Your task to perform on an android device: see creations saved in the google photos Image 0: 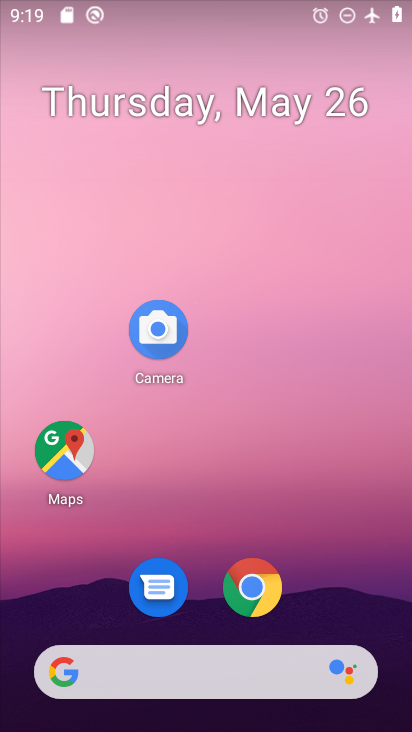
Step 0: drag from (201, 606) to (196, 197)
Your task to perform on an android device: see creations saved in the google photos Image 1: 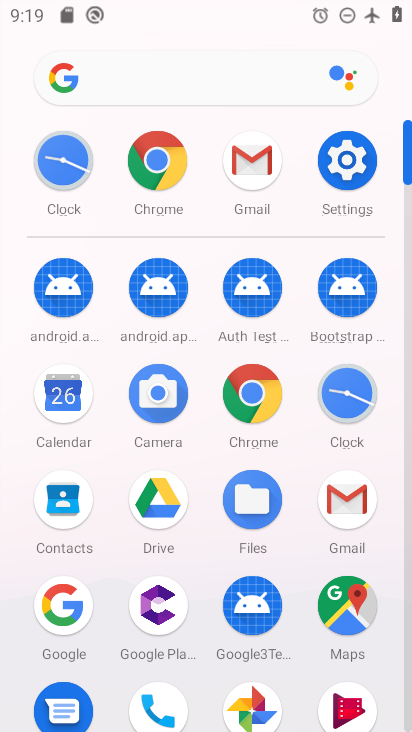
Step 1: drag from (195, 547) to (173, 252)
Your task to perform on an android device: see creations saved in the google photos Image 2: 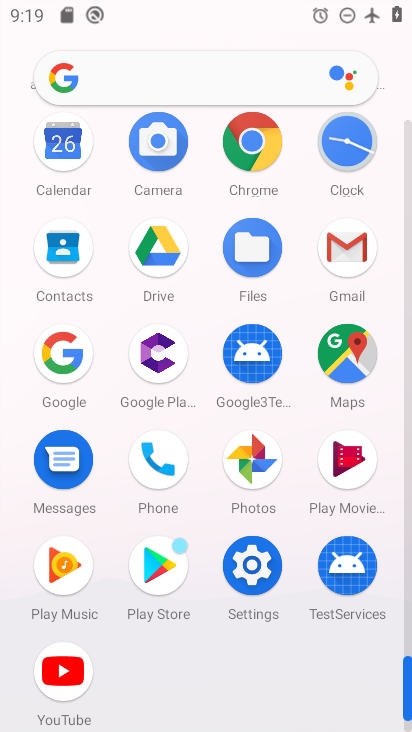
Step 2: click (263, 458)
Your task to perform on an android device: see creations saved in the google photos Image 3: 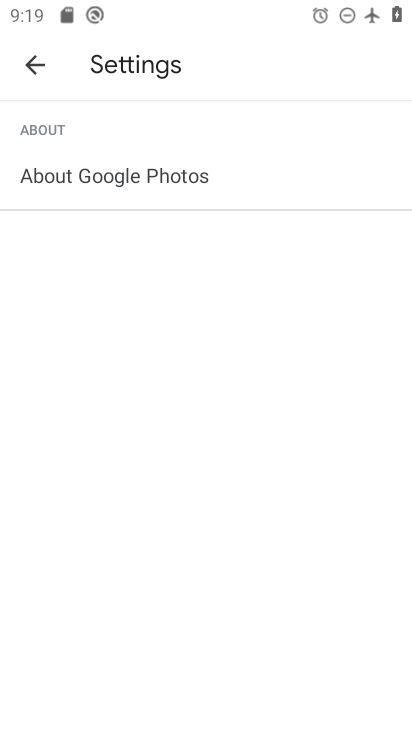
Step 3: click (23, 50)
Your task to perform on an android device: see creations saved in the google photos Image 4: 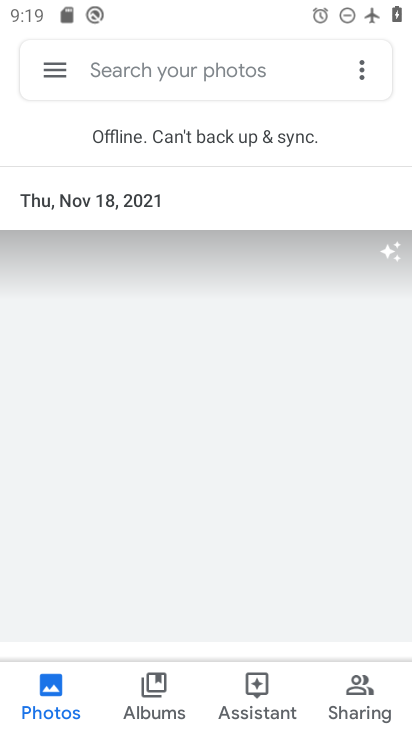
Step 4: click (170, 76)
Your task to perform on an android device: see creations saved in the google photos Image 5: 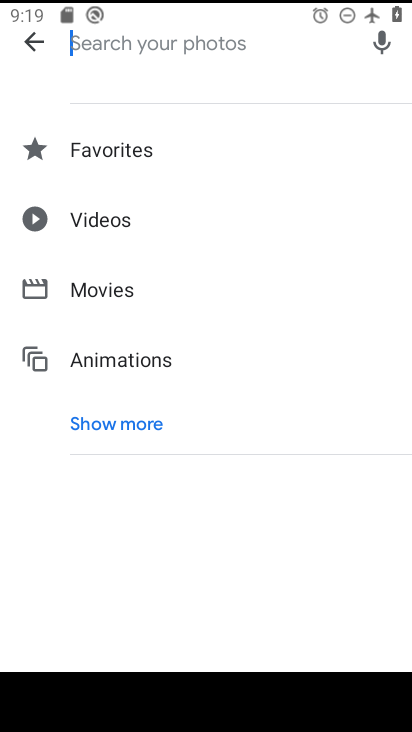
Step 5: click (139, 428)
Your task to perform on an android device: see creations saved in the google photos Image 6: 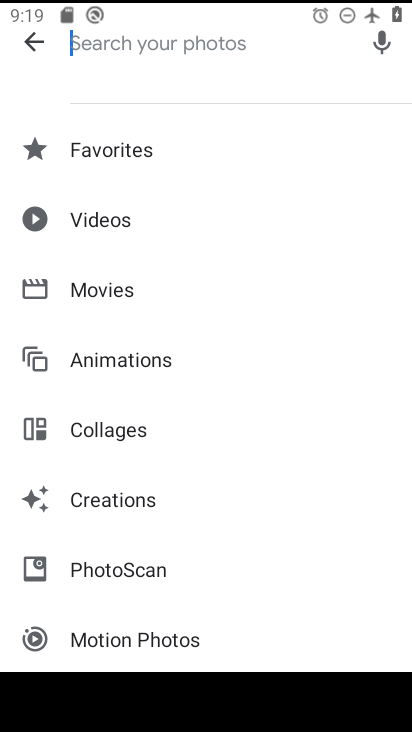
Step 6: click (166, 505)
Your task to perform on an android device: see creations saved in the google photos Image 7: 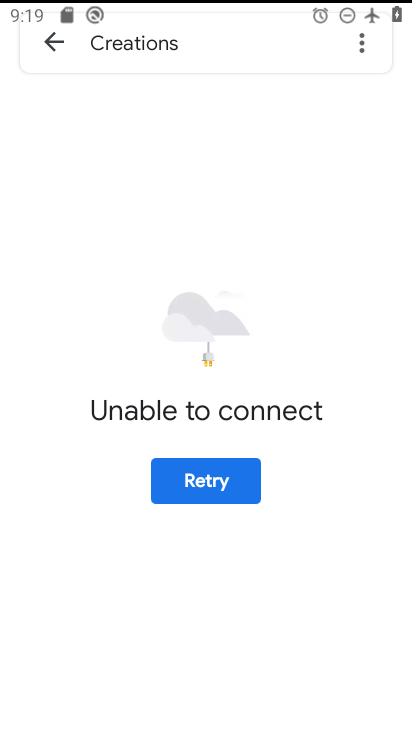
Step 7: task complete